Your task to perform on an android device: Open Google Chrome and open the bookmarks view Image 0: 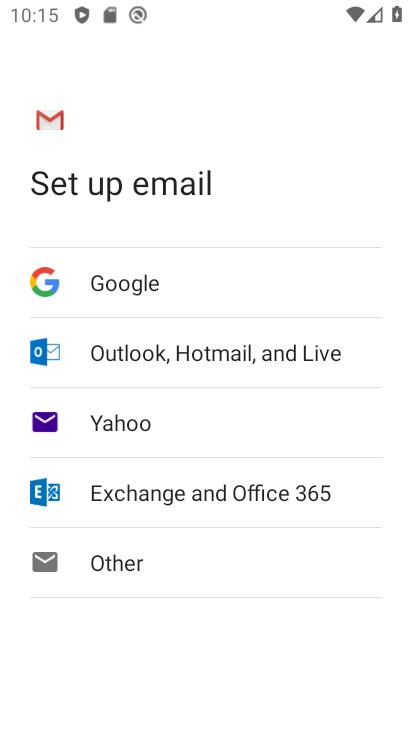
Step 0: press home button
Your task to perform on an android device: Open Google Chrome and open the bookmarks view Image 1: 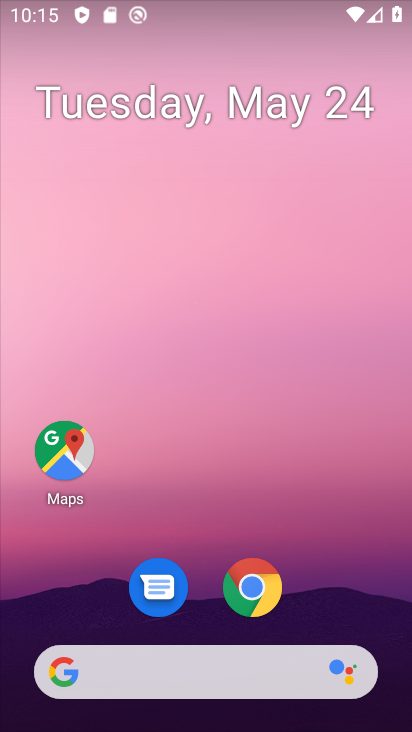
Step 1: click (249, 606)
Your task to perform on an android device: Open Google Chrome and open the bookmarks view Image 2: 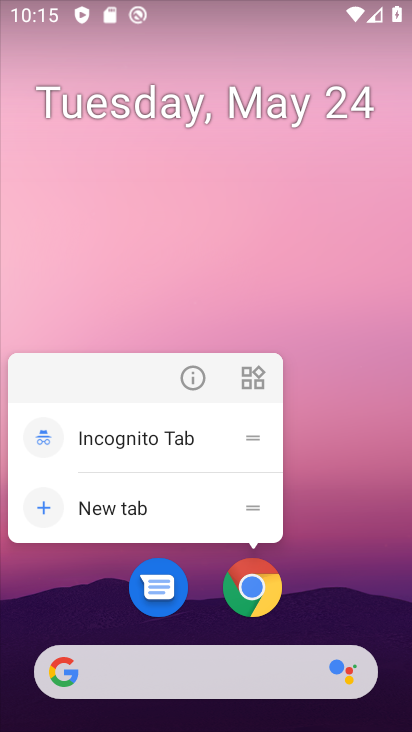
Step 2: click (249, 606)
Your task to perform on an android device: Open Google Chrome and open the bookmarks view Image 3: 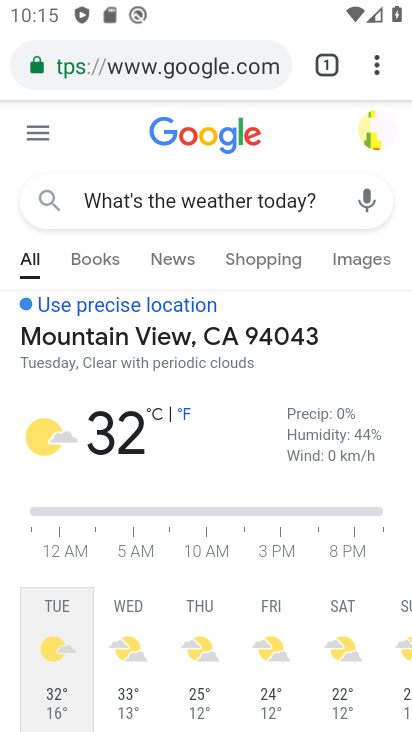
Step 3: click (374, 61)
Your task to perform on an android device: Open Google Chrome and open the bookmarks view Image 4: 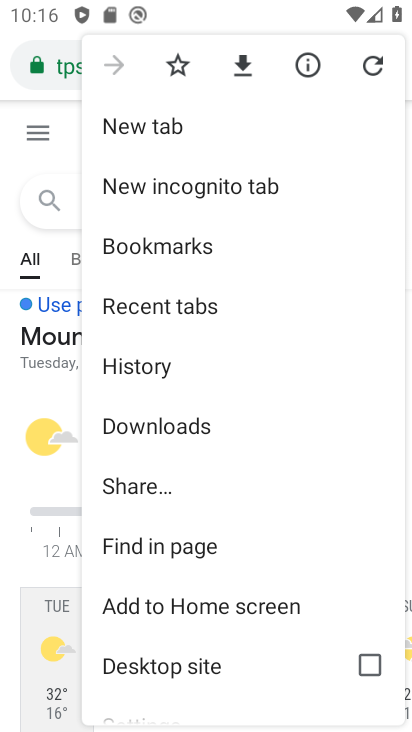
Step 4: click (152, 248)
Your task to perform on an android device: Open Google Chrome and open the bookmarks view Image 5: 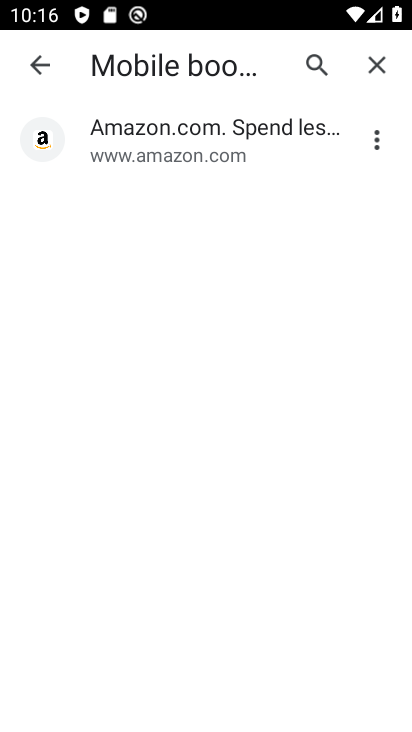
Step 5: task complete